Your task to perform on an android device: Go to Yahoo.com Image 0: 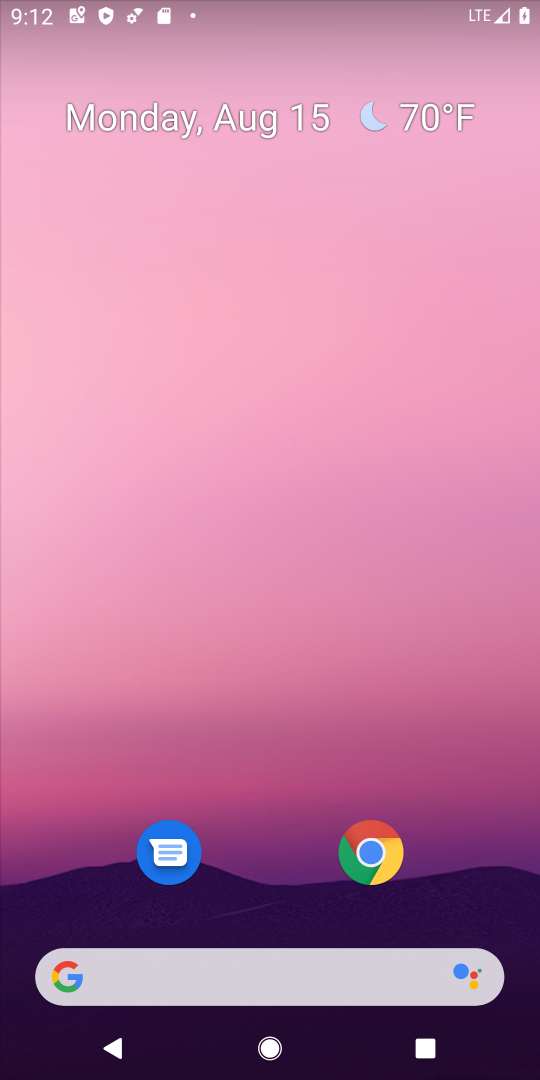
Step 0: click (370, 851)
Your task to perform on an android device: Go to Yahoo.com Image 1: 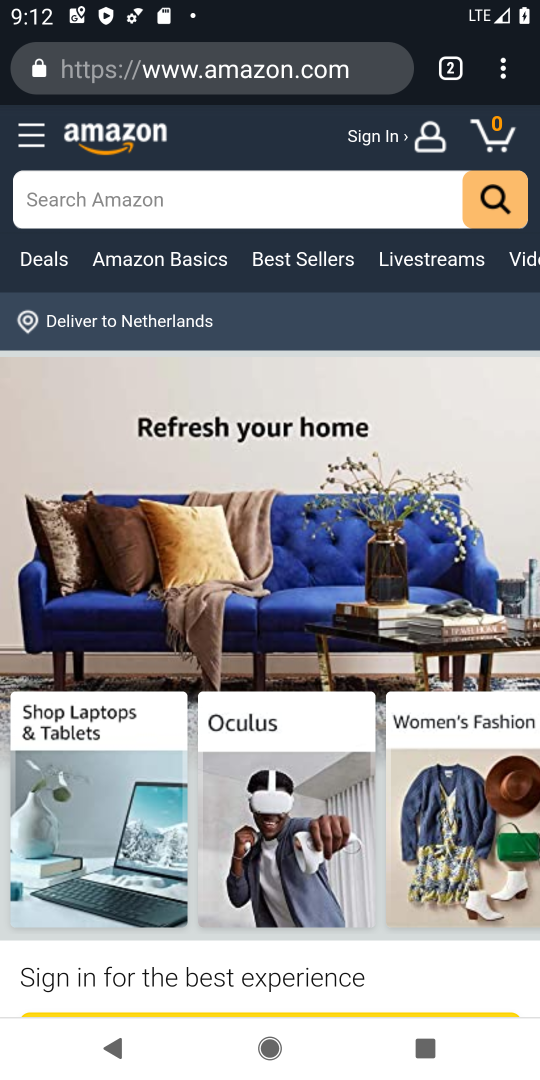
Step 1: click (377, 76)
Your task to perform on an android device: Go to Yahoo.com Image 2: 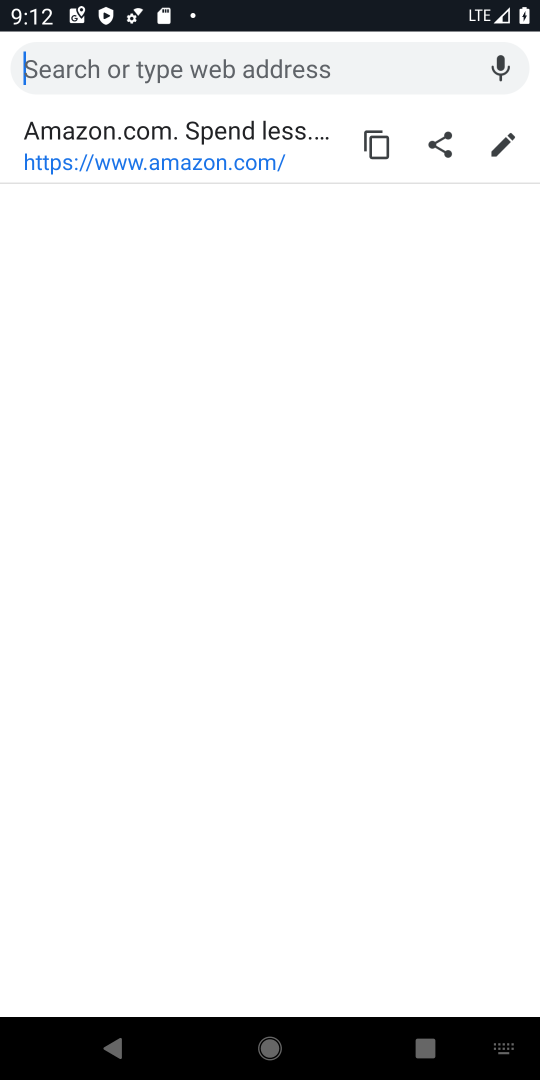
Step 2: type "Yahoo.com"
Your task to perform on an android device: Go to Yahoo.com Image 3: 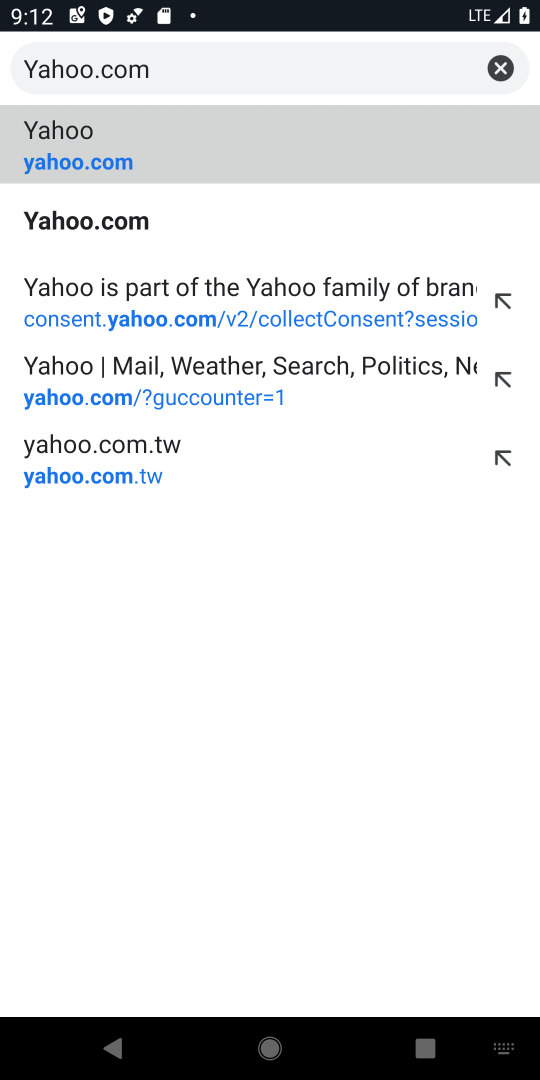
Step 3: click (138, 229)
Your task to perform on an android device: Go to Yahoo.com Image 4: 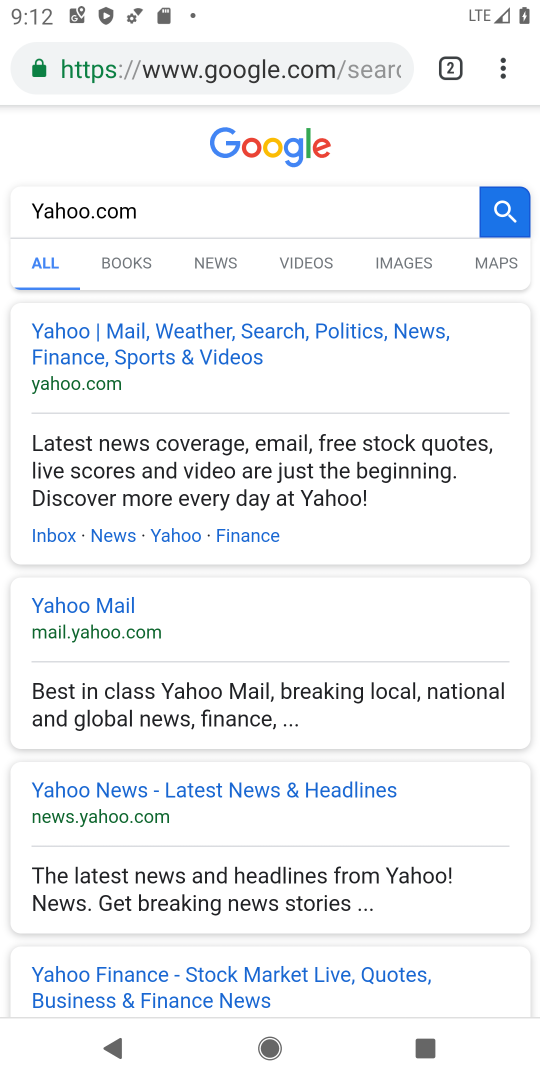
Step 4: click (122, 614)
Your task to perform on an android device: Go to Yahoo.com Image 5: 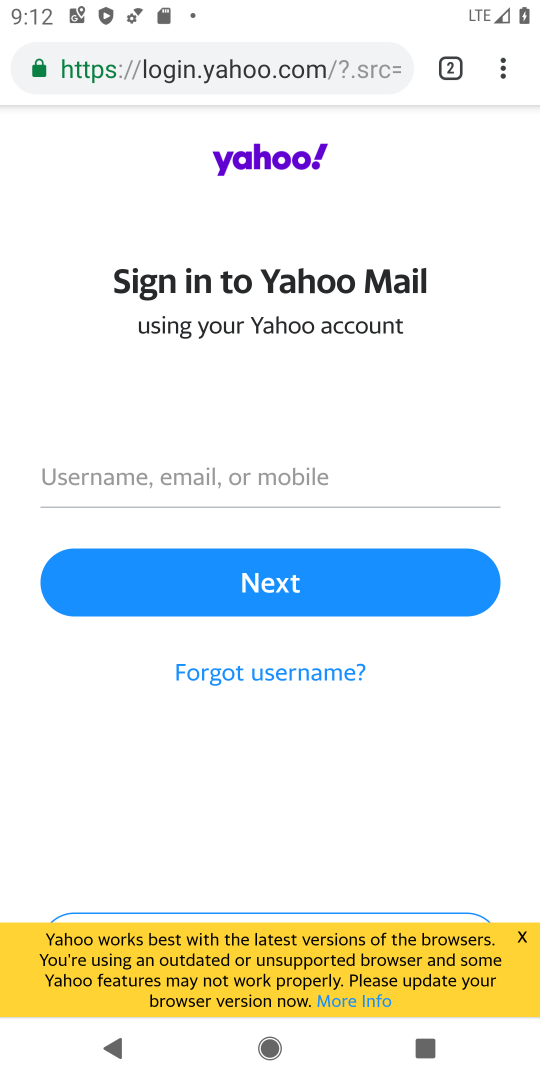
Step 5: task complete